Your task to perform on an android device: open app "Instagram" (install if not already installed) Image 0: 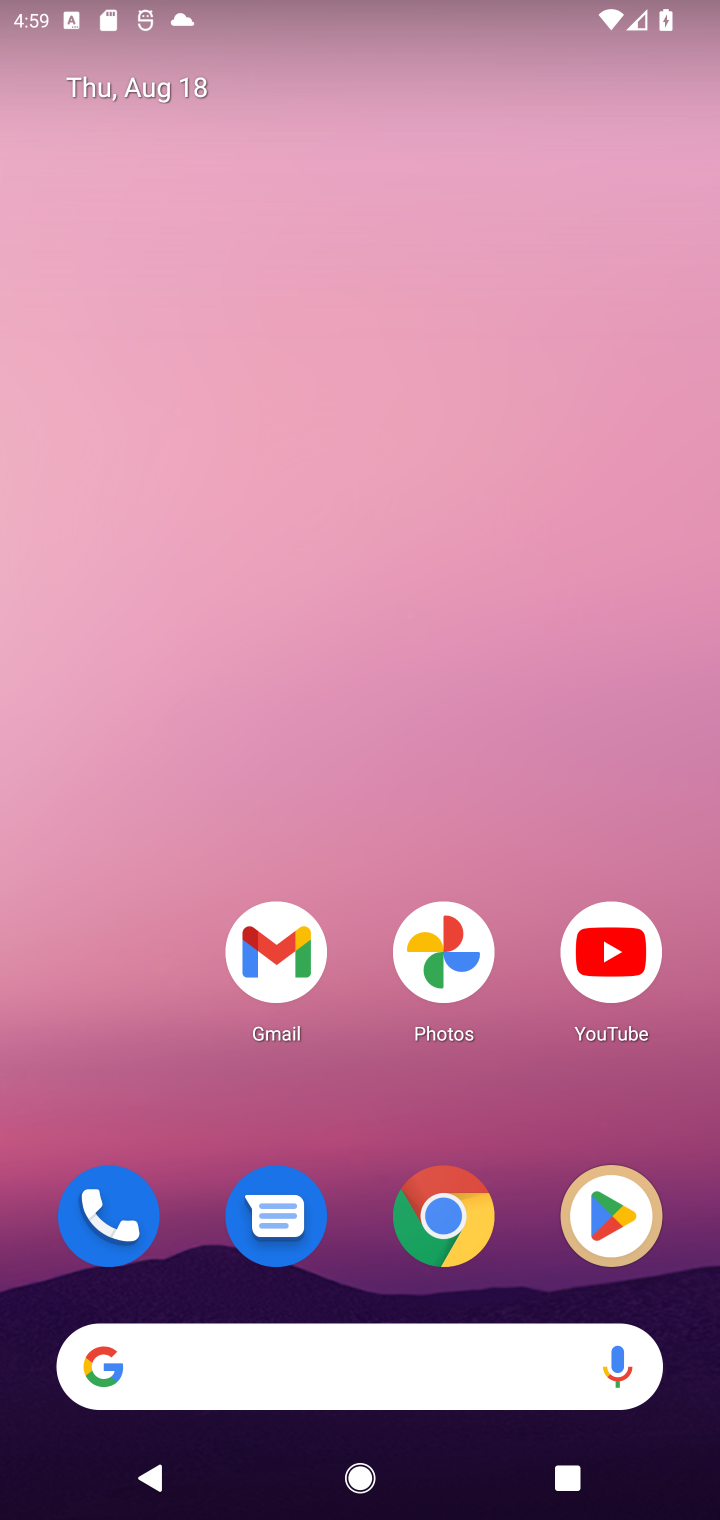
Step 0: click (583, 1180)
Your task to perform on an android device: open app "Instagram" (install if not already installed) Image 1: 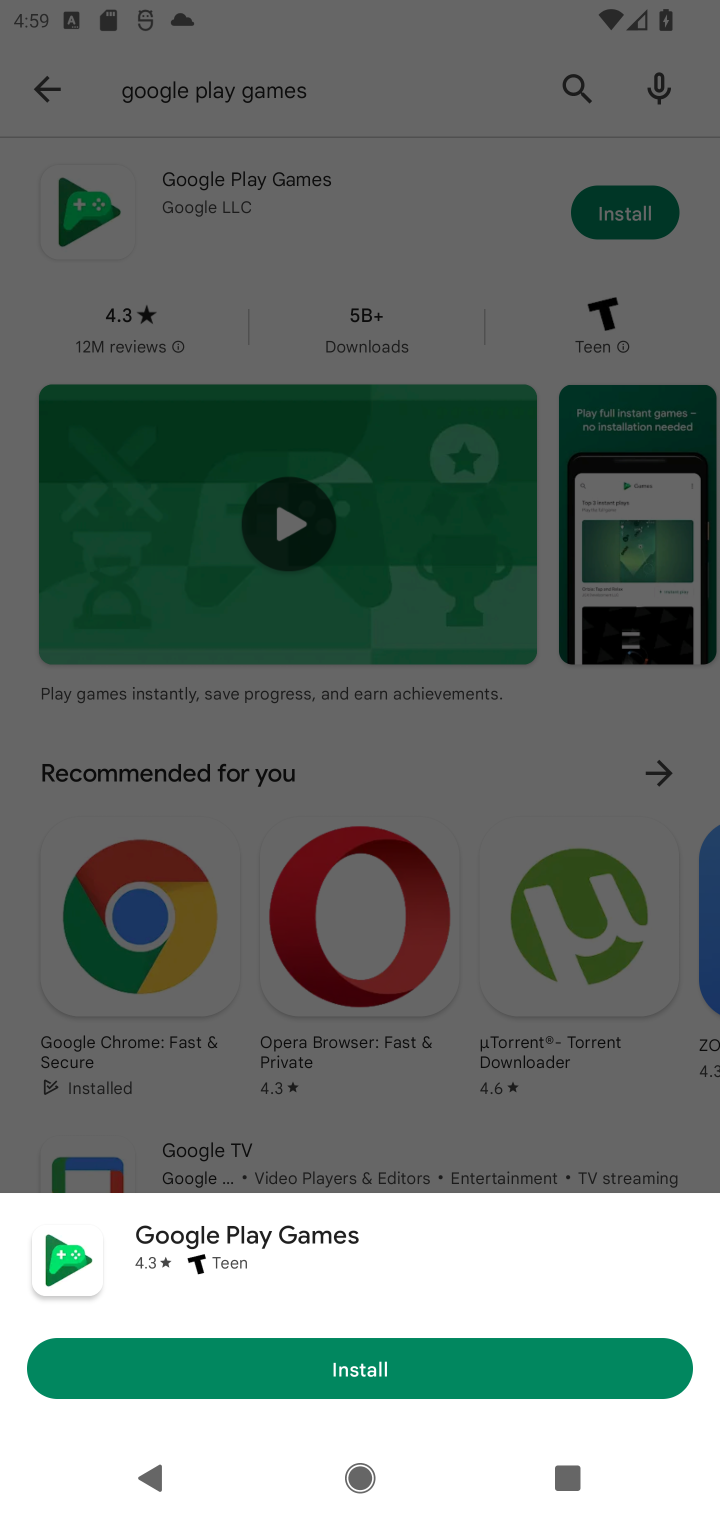
Step 1: click (548, 87)
Your task to perform on an android device: open app "Instagram" (install if not already installed) Image 2: 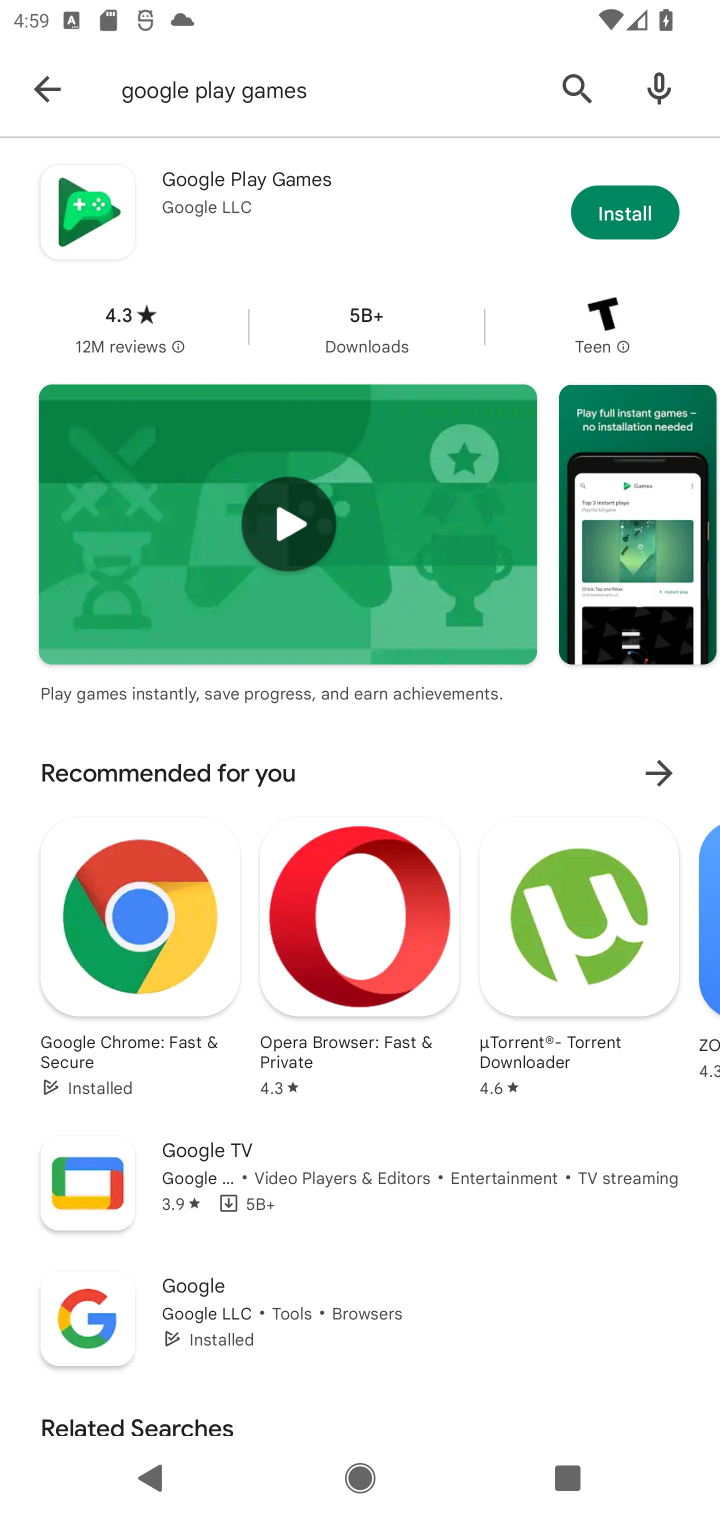
Step 2: click (565, 92)
Your task to perform on an android device: open app "Instagram" (install if not already installed) Image 3: 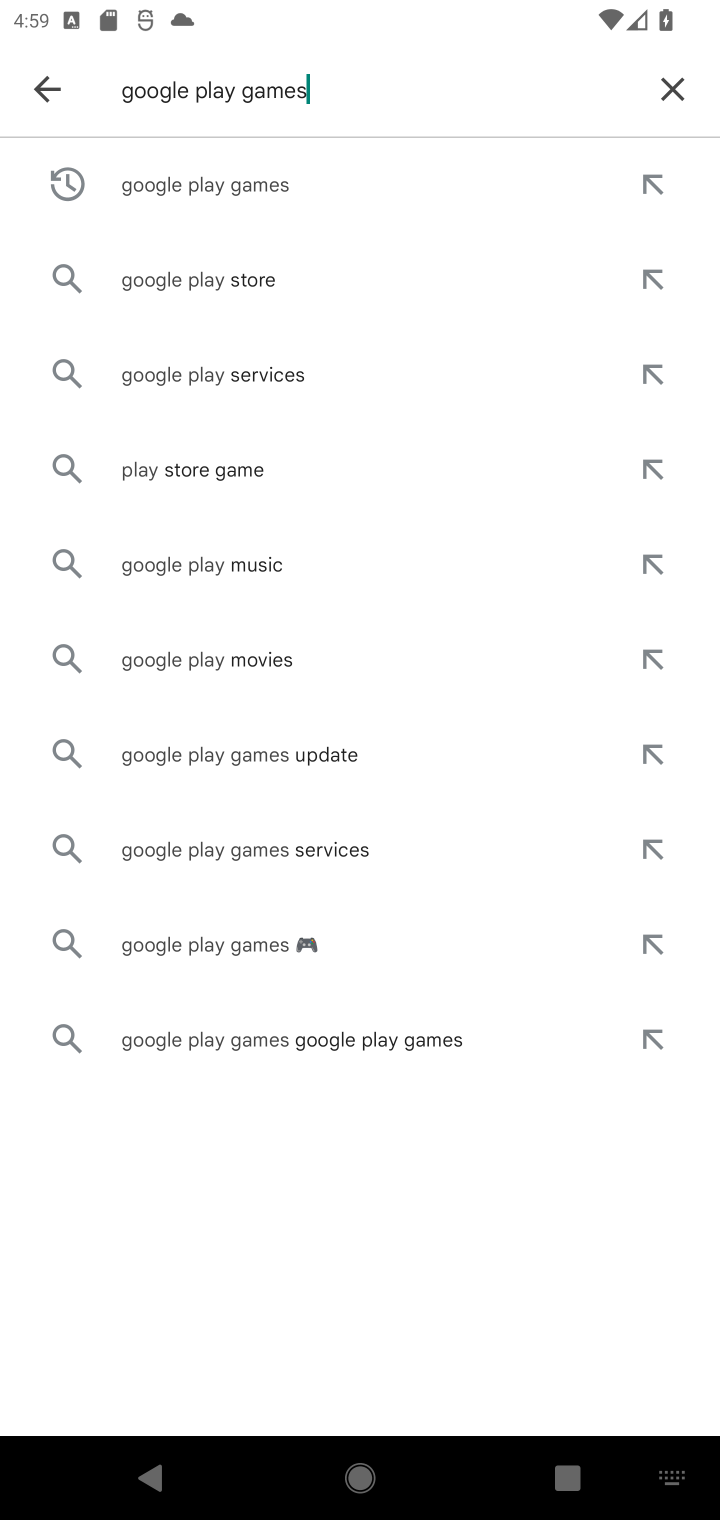
Step 3: click (667, 88)
Your task to perform on an android device: open app "Instagram" (install if not already installed) Image 4: 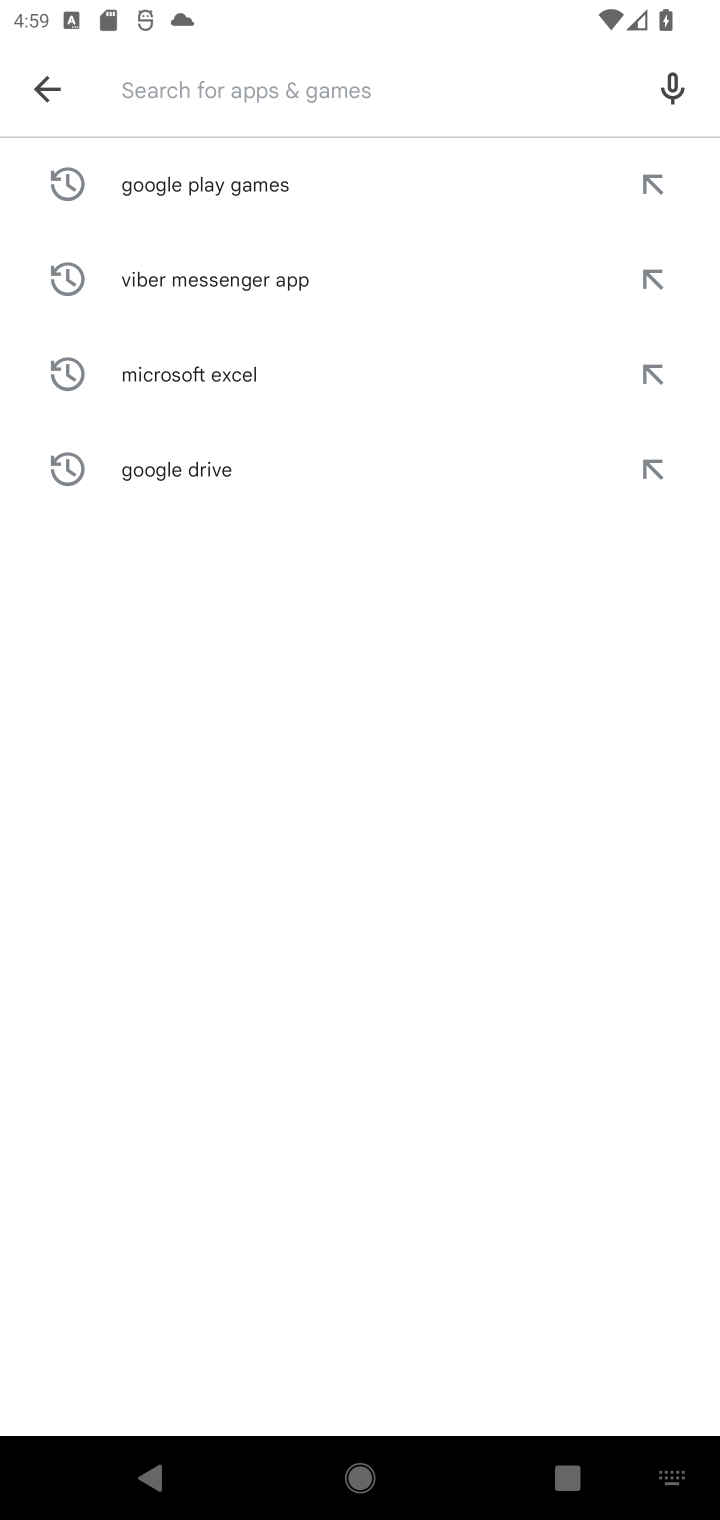
Step 4: type "Instagram"
Your task to perform on an android device: open app "Instagram" (install if not already installed) Image 5: 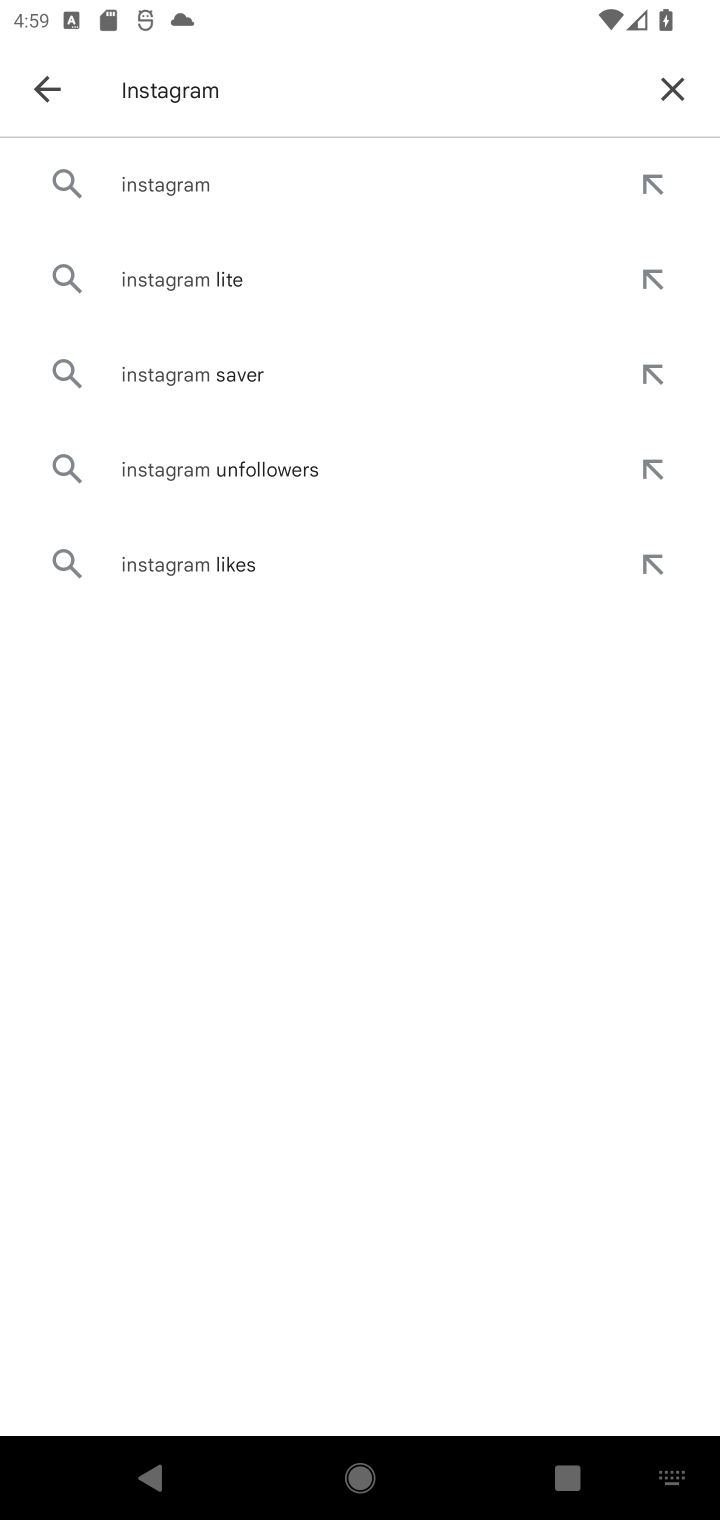
Step 5: click (260, 155)
Your task to perform on an android device: open app "Instagram" (install if not already installed) Image 6: 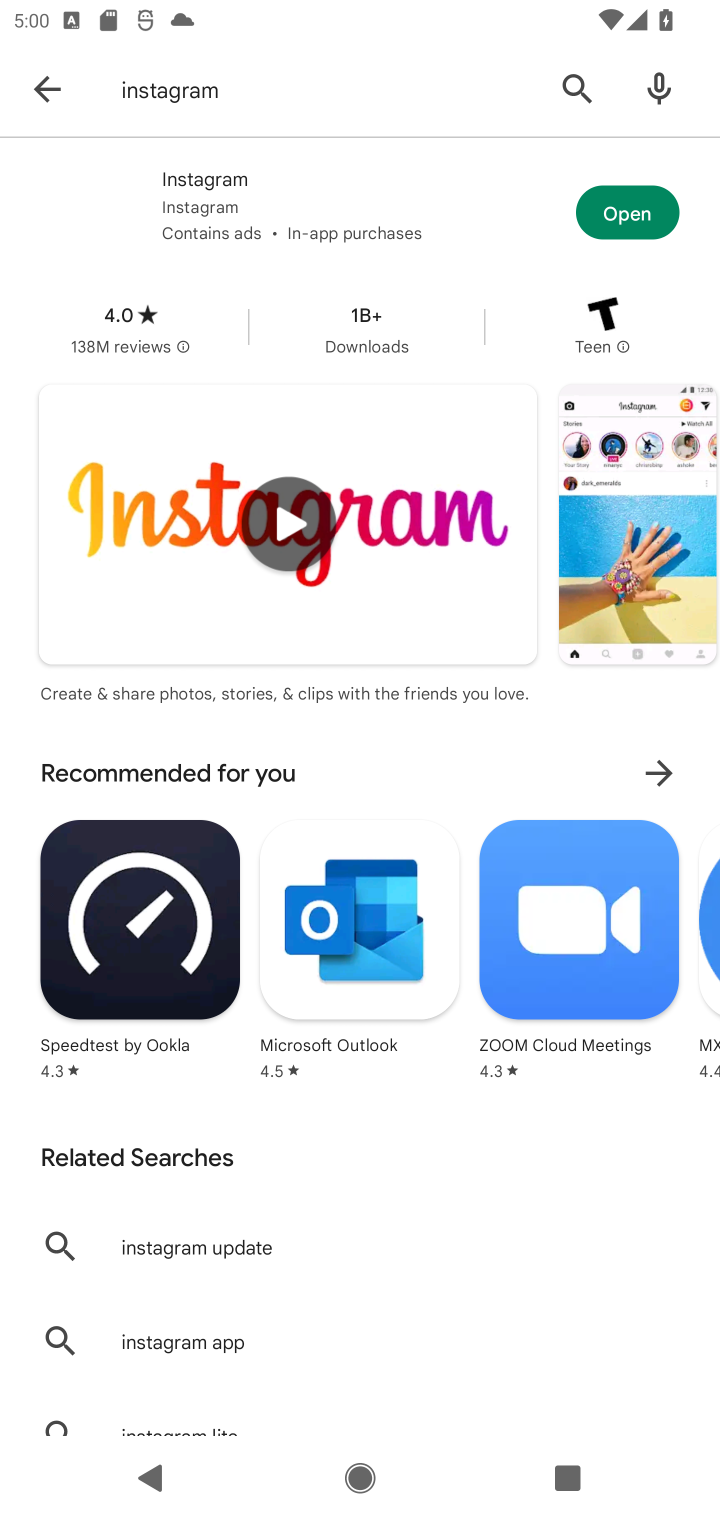
Step 6: click (614, 219)
Your task to perform on an android device: open app "Instagram" (install if not already installed) Image 7: 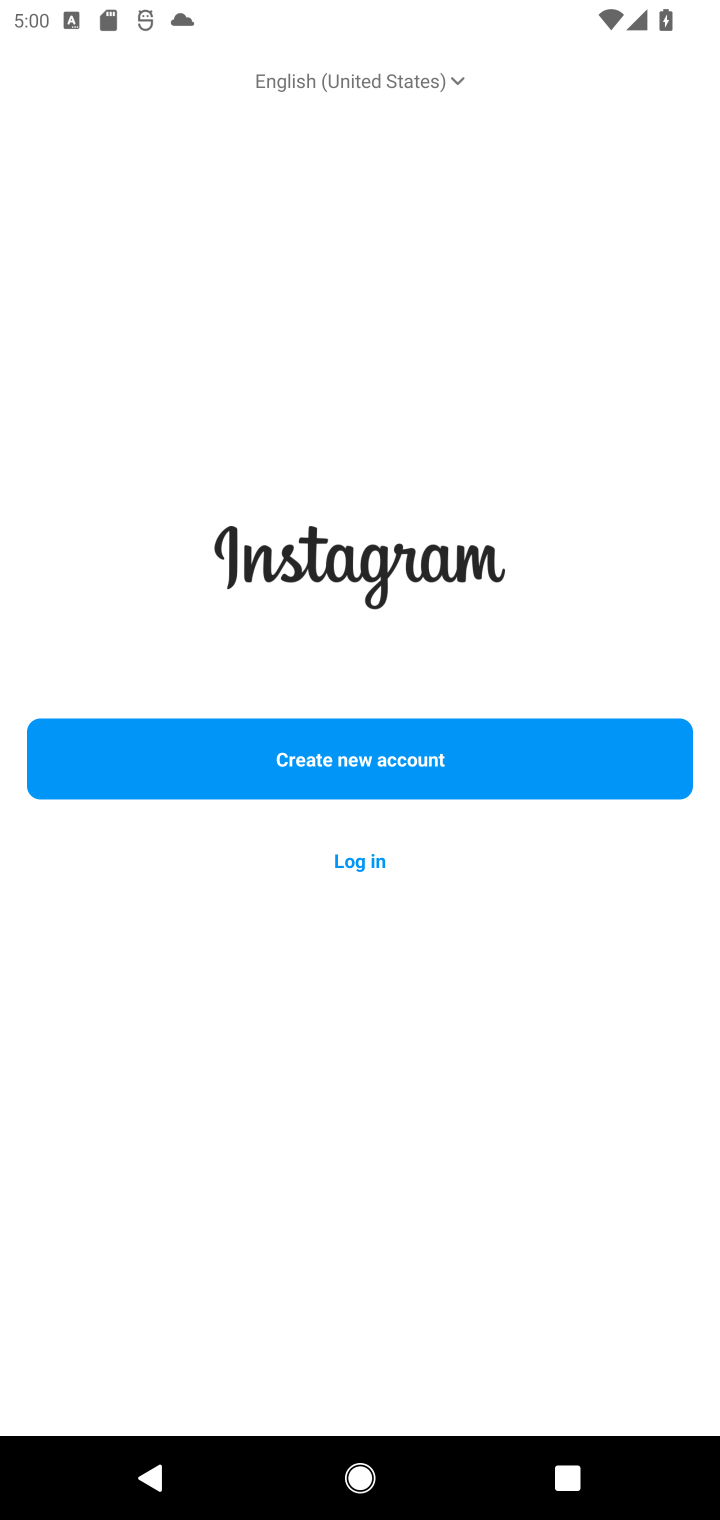
Step 7: task complete